Your task to perform on an android device: turn on the 12-hour format for clock Image 0: 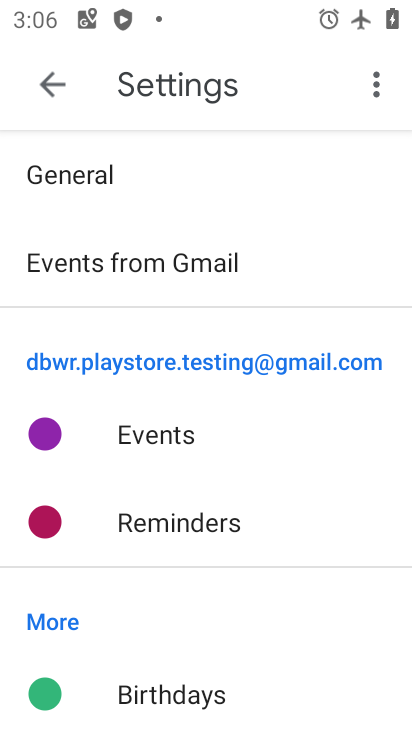
Step 0: press home button
Your task to perform on an android device: turn on the 12-hour format for clock Image 1: 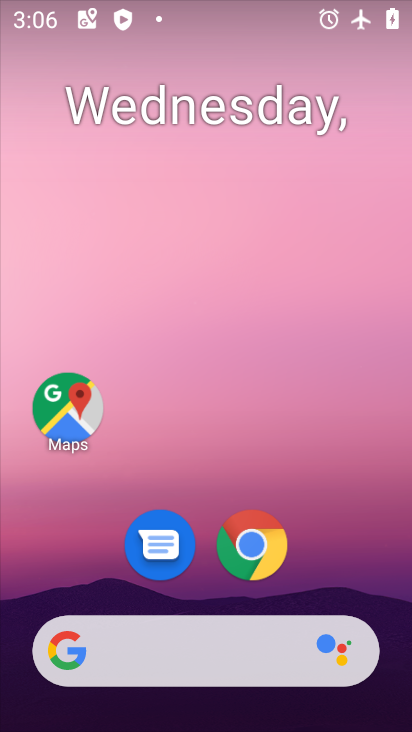
Step 1: drag from (339, 530) to (352, 91)
Your task to perform on an android device: turn on the 12-hour format for clock Image 2: 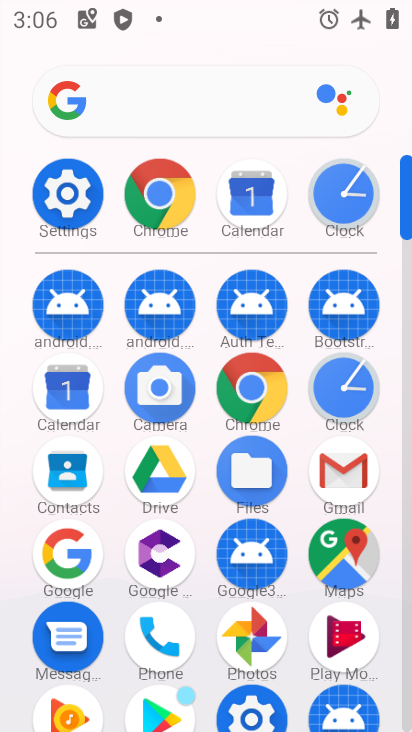
Step 2: click (340, 382)
Your task to perform on an android device: turn on the 12-hour format for clock Image 3: 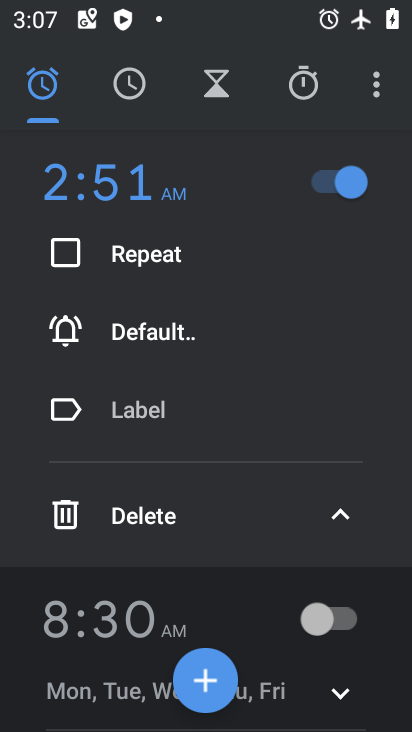
Step 3: click (357, 75)
Your task to perform on an android device: turn on the 12-hour format for clock Image 4: 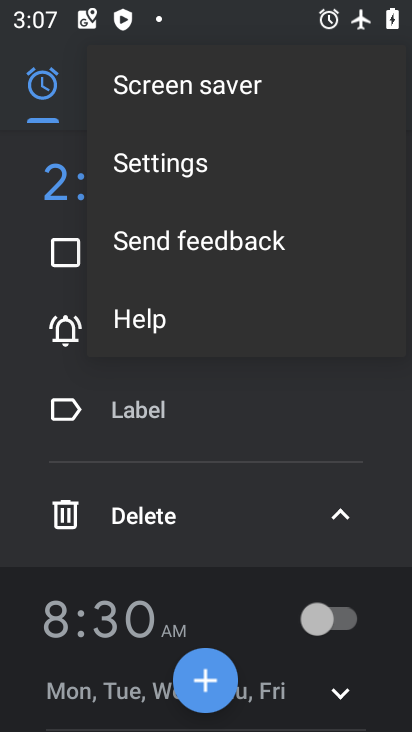
Step 4: click (225, 161)
Your task to perform on an android device: turn on the 12-hour format for clock Image 5: 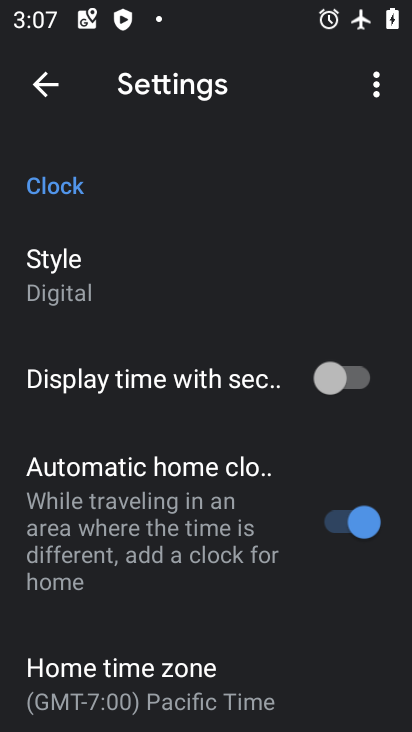
Step 5: drag from (221, 621) to (283, 267)
Your task to perform on an android device: turn on the 12-hour format for clock Image 6: 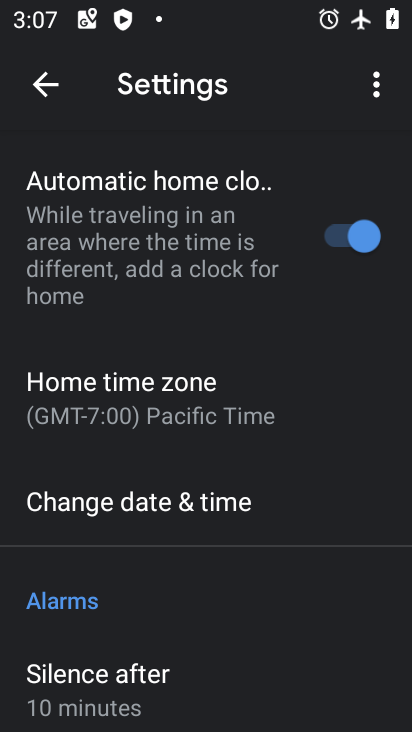
Step 6: click (142, 514)
Your task to perform on an android device: turn on the 12-hour format for clock Image 7: 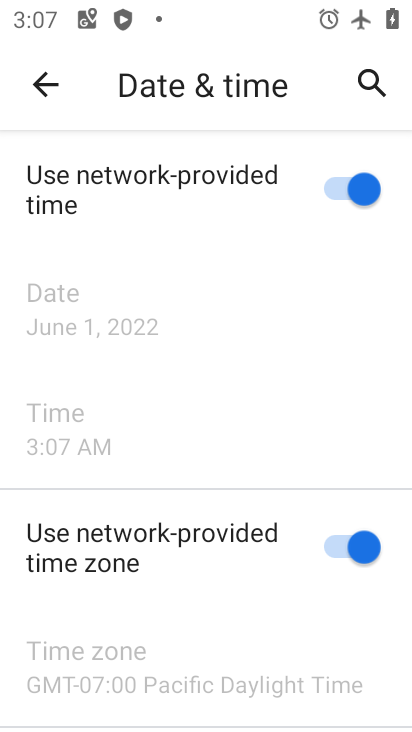
Step 7: task complete